Your task to perform on an android device: Go to Yahoo.com Image 0: 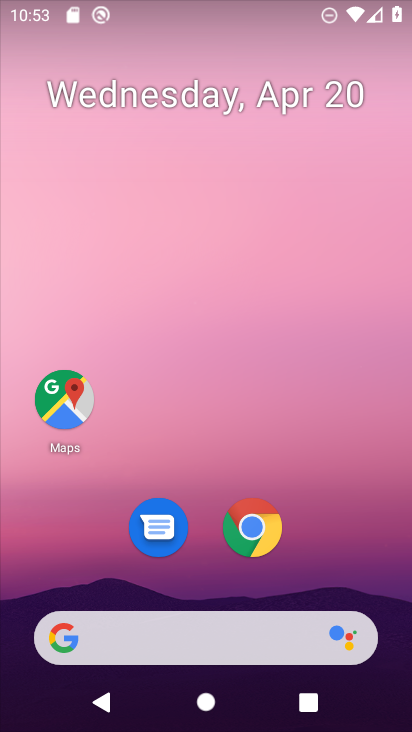
Step 0: click (254, 531)
Your task to perform on an android device: Go to Yahoo.com Image 1: 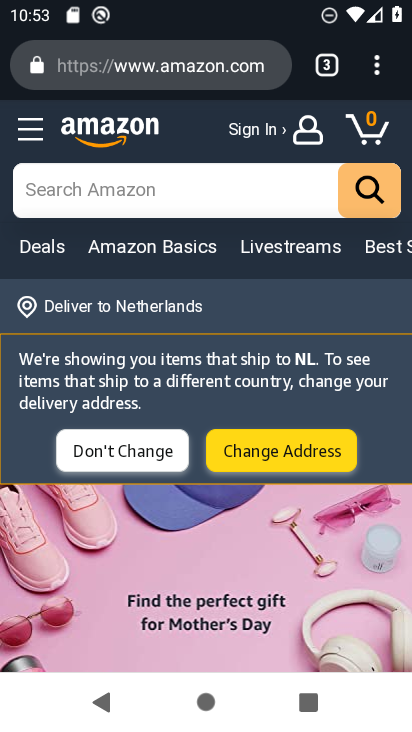
Step 1: click (162, 63)
Your task to perform on an android device: Go to Yahoo.com Image 2: 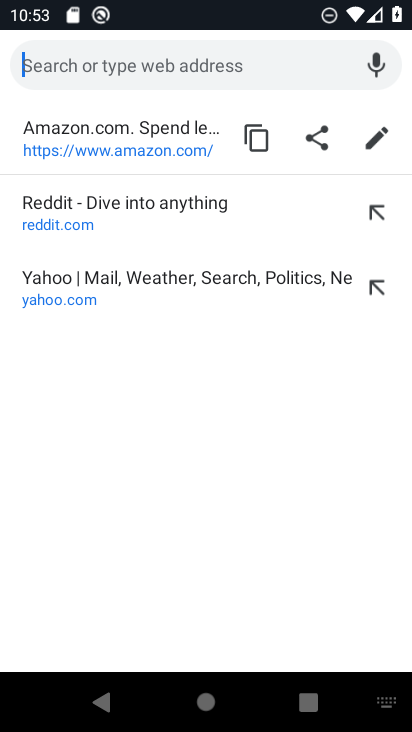
Step 2: type "yahoo.com"
Your task to perform on an android device: Go to Yahoo.com Image 3: 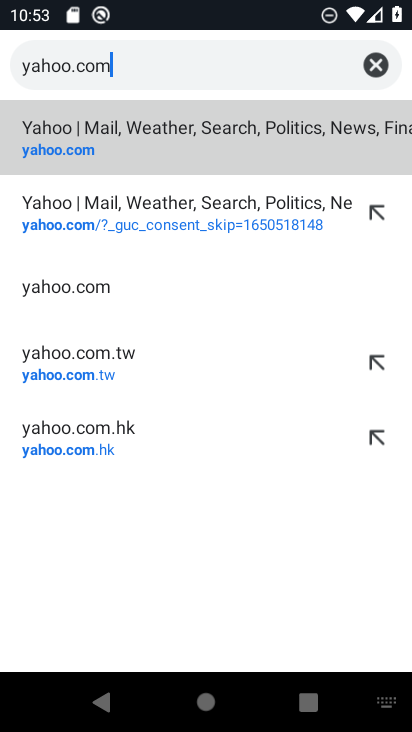
Step 3: click (153, 161)
Your task to perform on an android device: Go to Yahoo.com Image 4: 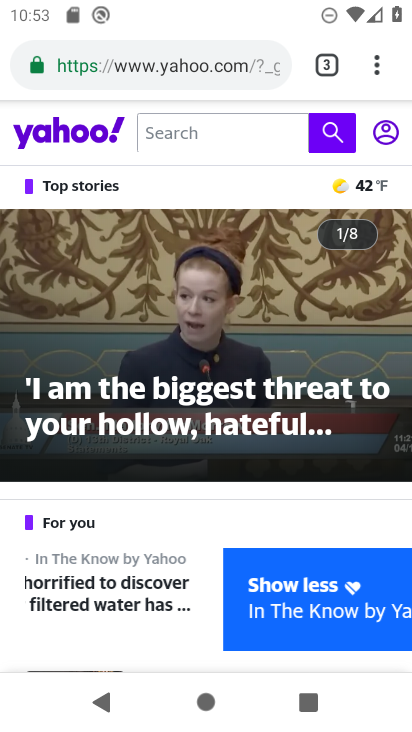
Step 4: task complete